Your task to perform on an android device: Search for vegetarian restaurants on Maps Image 0: 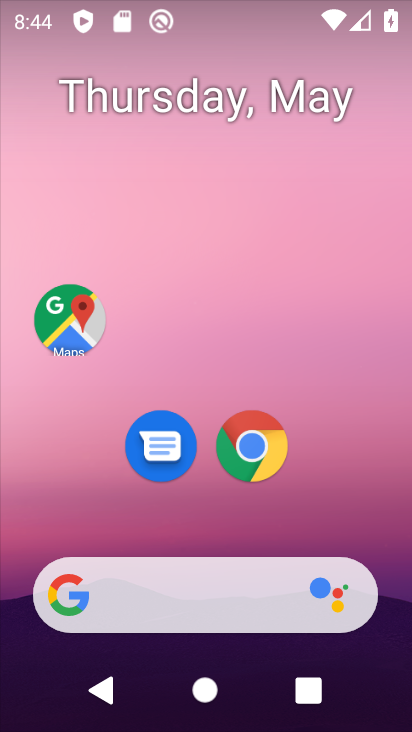
Step 0: click (74, 319)
Your task to perform on an android device: Search for vegetarian restaurants on Maps Image 1: 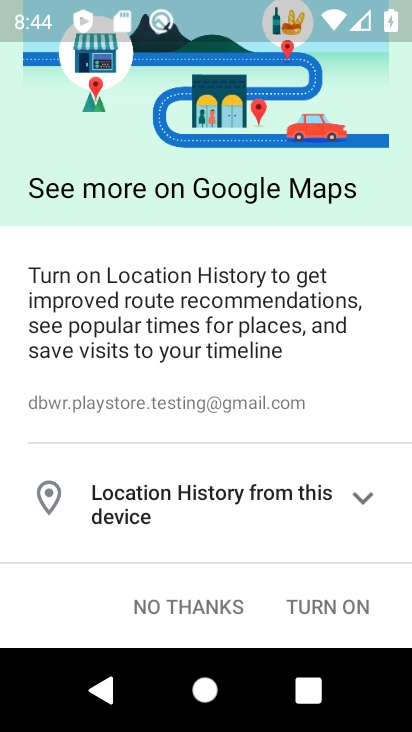
Step 1: click (192, 585)
Your task to perform on an android device: Search for vegetarian restaurants on Maps Image 2: 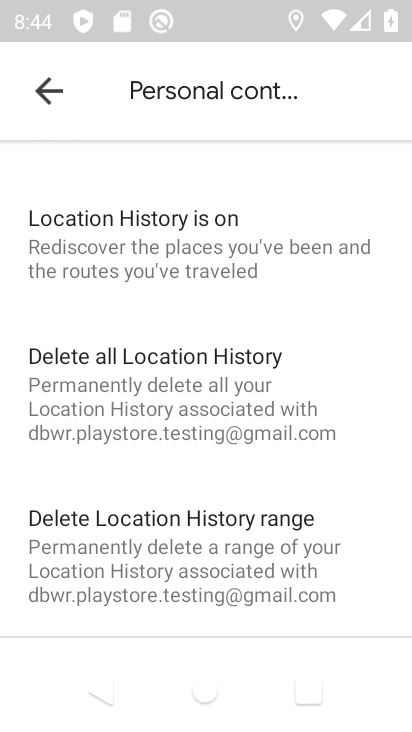
Step 2: press back button
Your task to perform on an android device: Search for vegetarian restaurants on Maps Image 3: 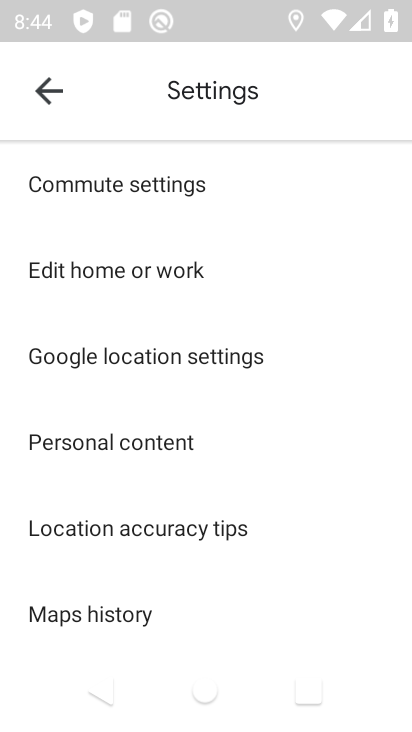
Step 3: press back button
Your task to perform on an android device: Search for vegetarian restaurants on Maps Image 4: 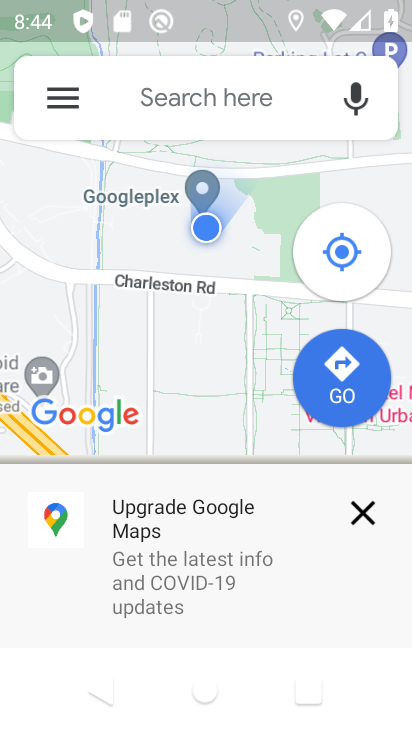
Step 4: click (162, 99)
Your task to perform on an android device: Search for vegetarian restaurants on Maps Image 5: 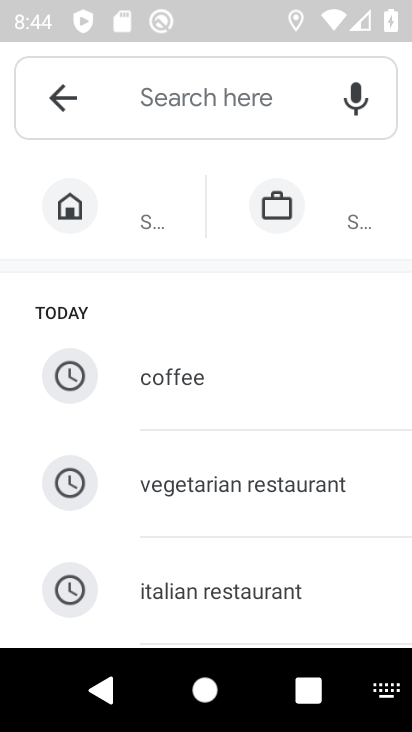
Step 5: type "vegetarian restaurants"
Your task to perform on an android device: Search for vegetarian restaurants on Maps Image 6: 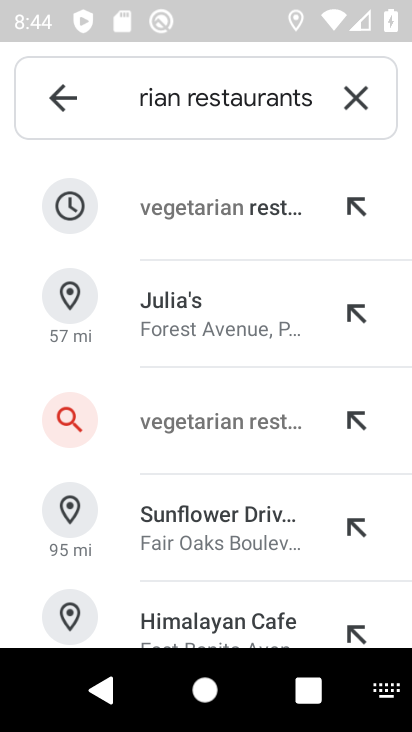
Step 6: click (204, 215)
Your task to perform on an android device: Search for vegetarian restaurants on Maps Image 7: 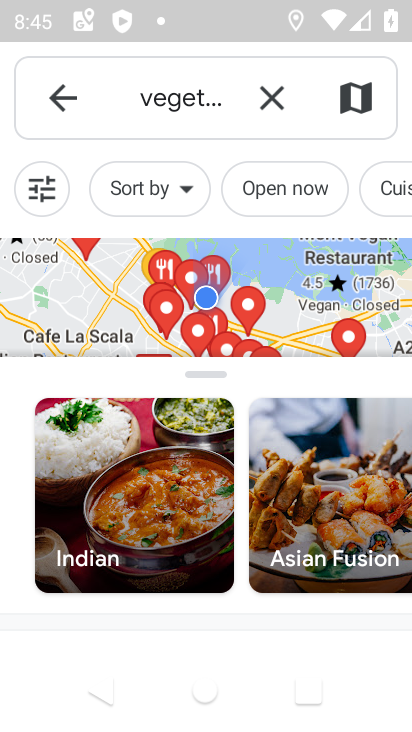
Step 7: task complete